Your task to perform on an android device: Go to Android settings Image 0: 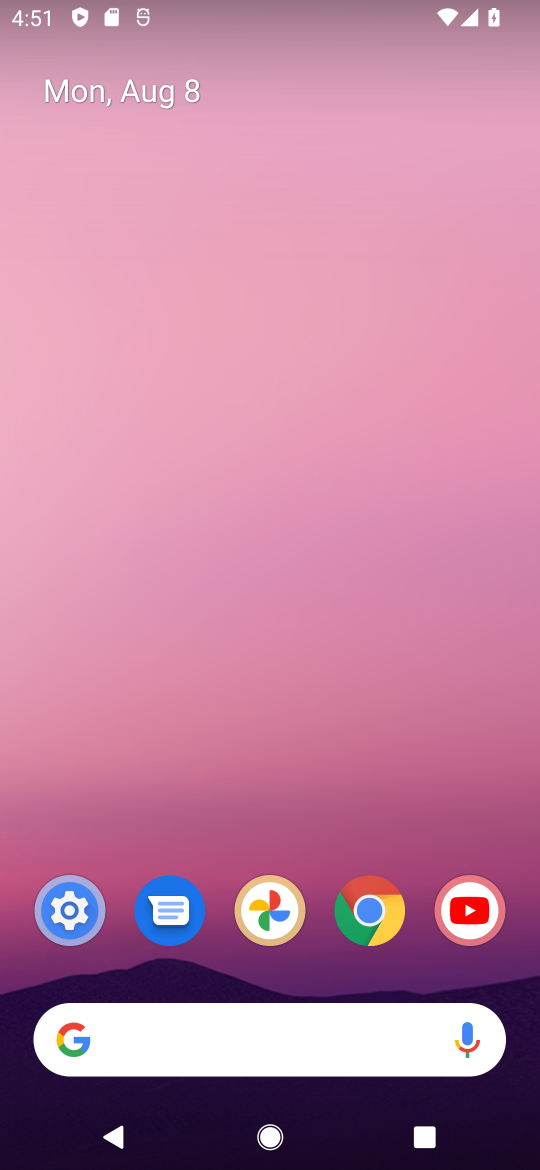
Step 0: click (72, 909)
Your task to perform on an android device: Go to Android settings Image 1: 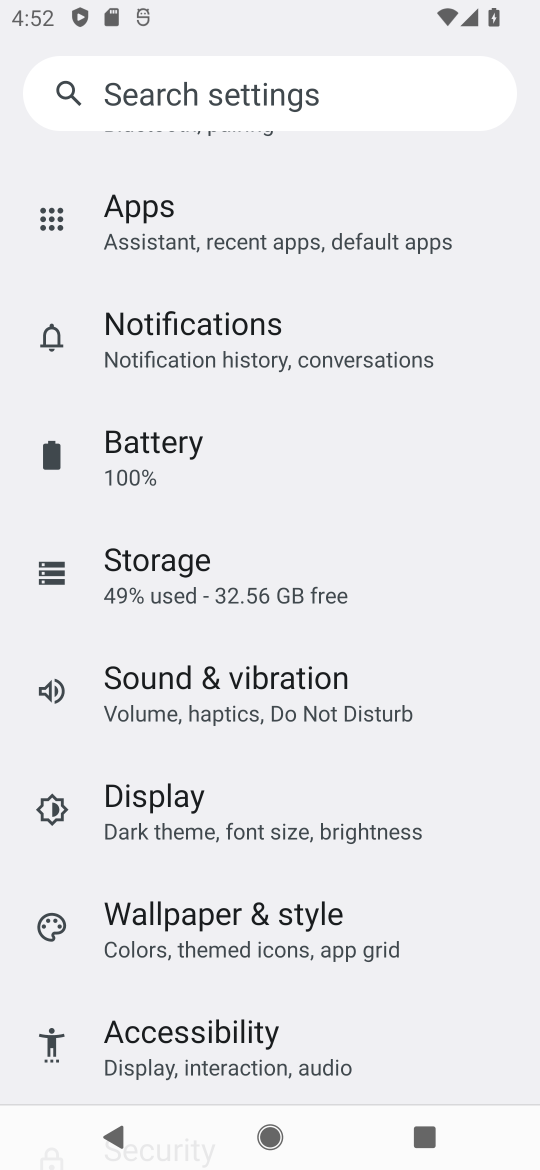
Step 1: task complete